Your task to perform on an android device: turn on priority inbox in the gmail app Image 0: 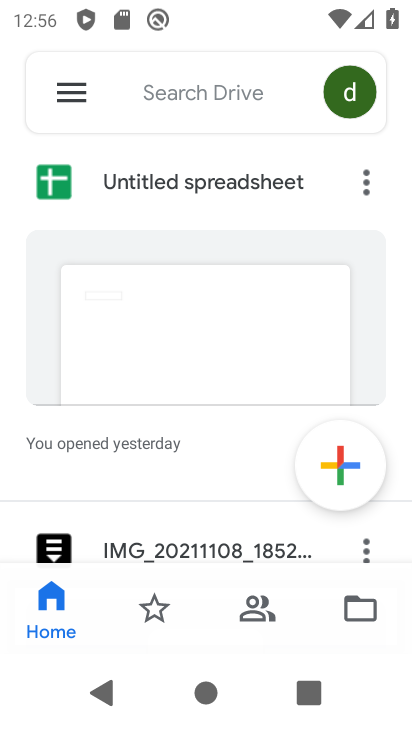
Step 0: press home button
Your task to perform on an android device: turn on priority inbox in the gmail app Image 1: 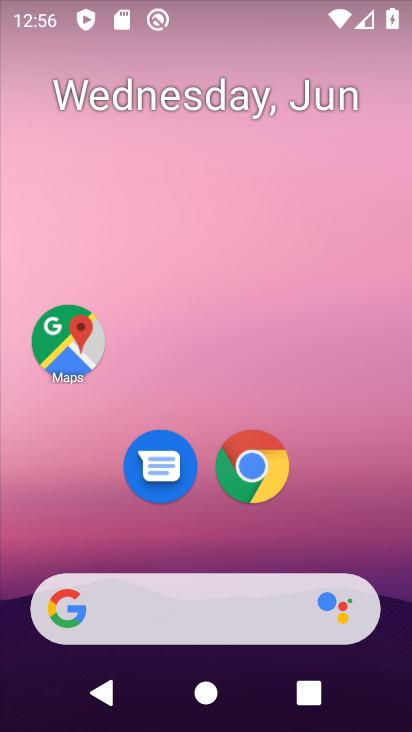
Step 1: drag from (120, 565) to (219, 52)
Your task to perform on an android device: turn on priority inbox in the gmail app Image 2: 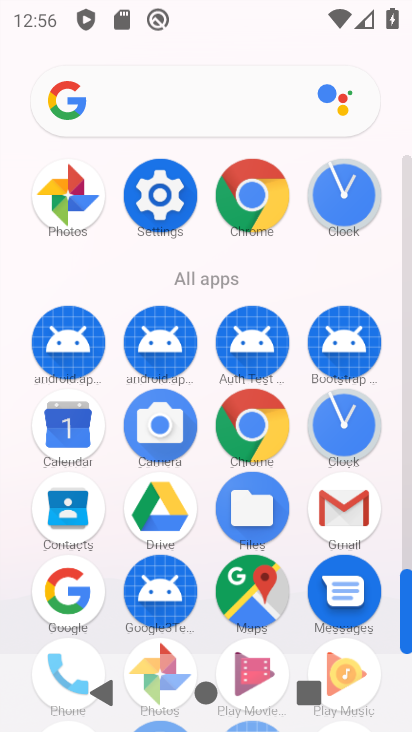
Step 2: click (348, 503)
Your task to perform on an android device: turn on priority inbox in the gmail app Image 3: 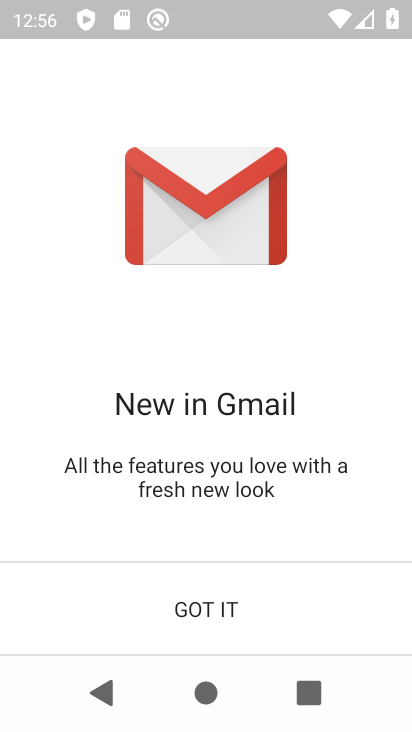
Step 3: click (228, 583)
Your task to perform on an android device: turn on priority inbox in the gmail app Image 4: 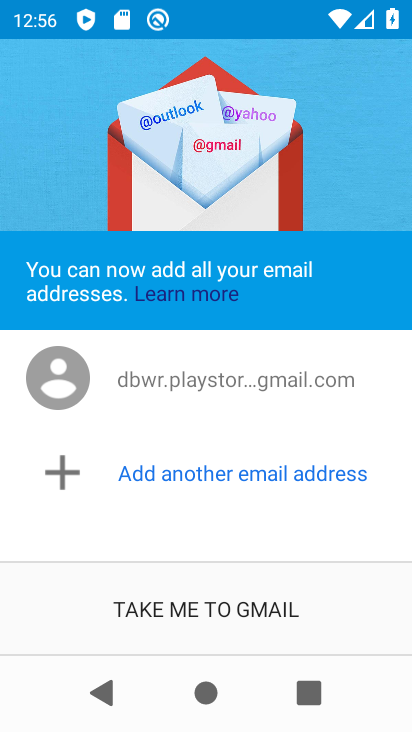
Step 4: click (232, 624)
Your task to perform on an android device: turn on priority inbox in the gmail app Image 5: 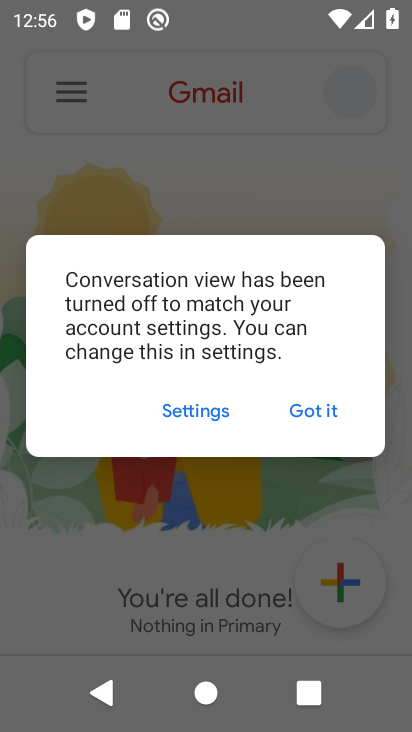
Step 5: click (330, 414)
Your task to perform on an android device: turn on priority inbox in the gmail app Image 6: 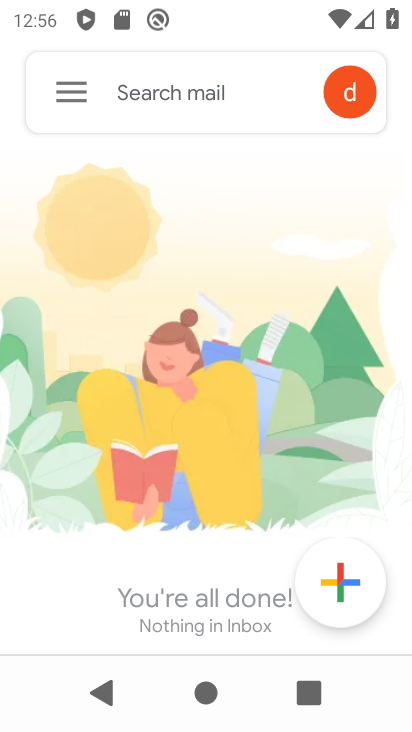
Step 6: click (82, 93)
Your task to perform on an android device: turn on priority inbox in the gmail app Image 7: 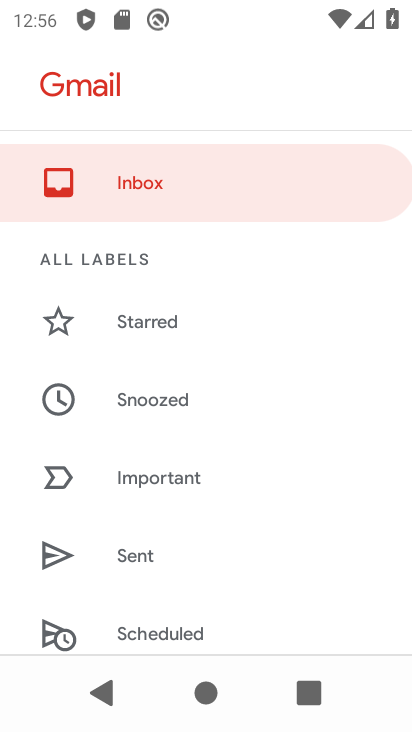
Step 7: drag from (103, 620) to (235, 125)
Your task to perform on an android device: turn on priority inbox in the gmail app Image 8: 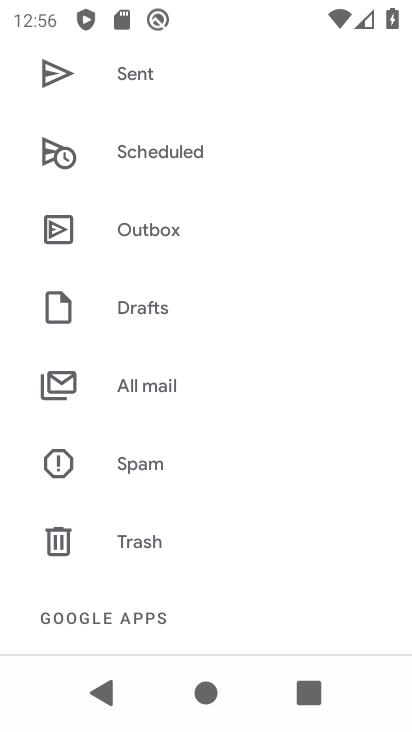
Step 8: drag from (137, 580) to (234, 207)
Your task to perform on an android device: turn on priority inbox in the gmail app Image 9: 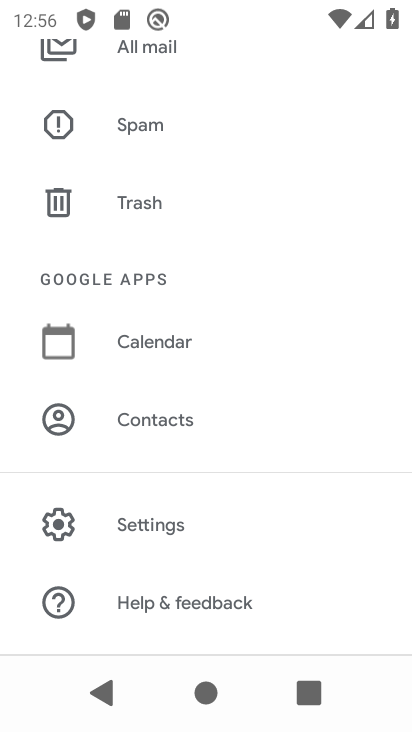
Step 9: click (205, 525)
Your task to perform on an android device: turn on priority inbox in the gmail app Image 10: 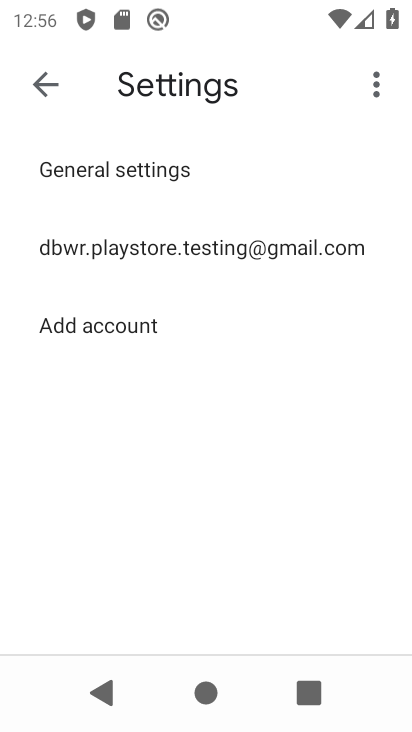
Step 10: click (259, 222)
Your task to perform on an android device: turn on priority inbox in the gmail app Image 11: 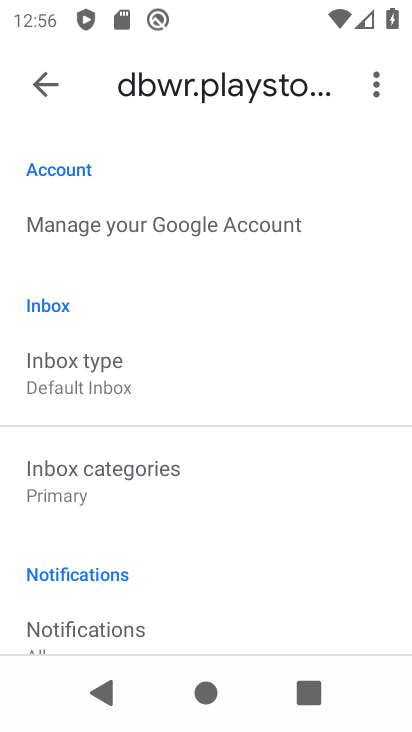
Step 11: click (183, 389)
Your task to perform on an android device: turn on priority inbox in the gmail app Image 12: 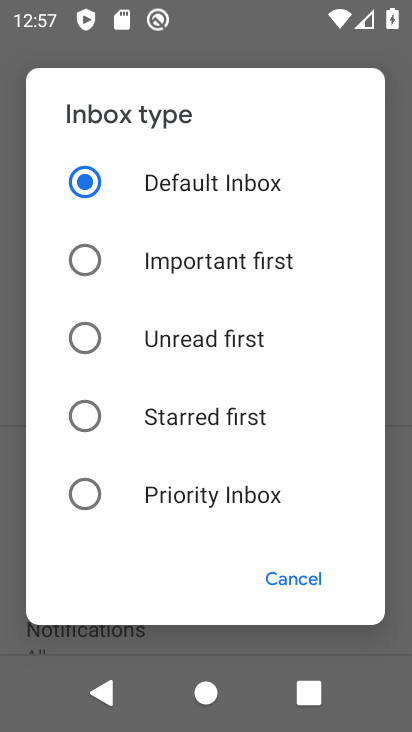
Step 12: click (257, 488)
Your task to perform on an android device: turn on priority inbox in the gmail app Image 13: 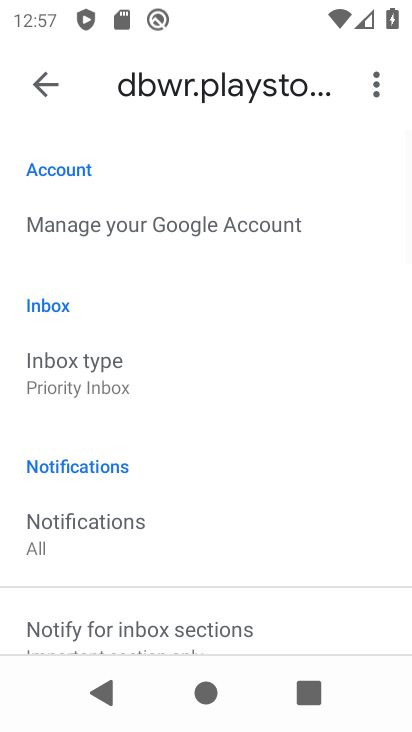
Step 13: task complete